Your task to perform on an android device: open chrome and create a bookmark for the current page Image 0: 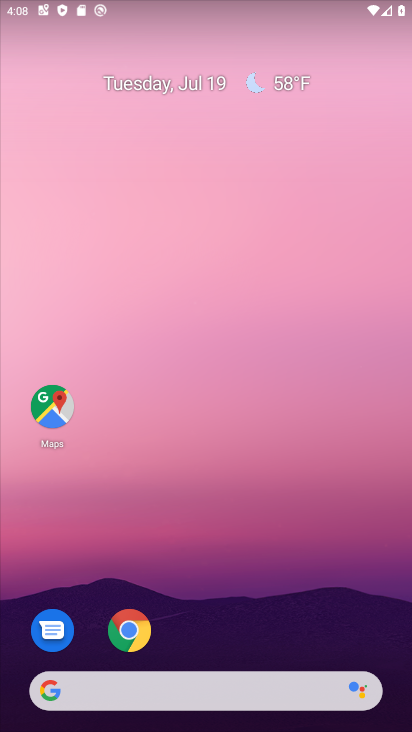
Step 0: click (134, 645)
Your task to perform on an android device: open chrome and create a bookmark for the current page Image 1: 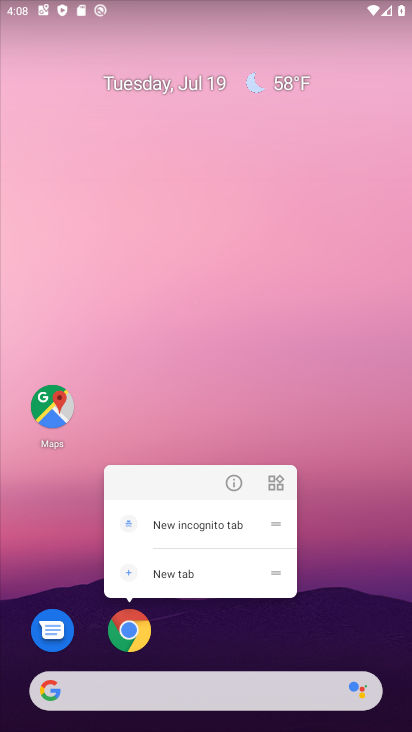
Step 1: click (133, 632)
Your task to perform on an android device: open chrome and create a bookmark for the current page Image 2: 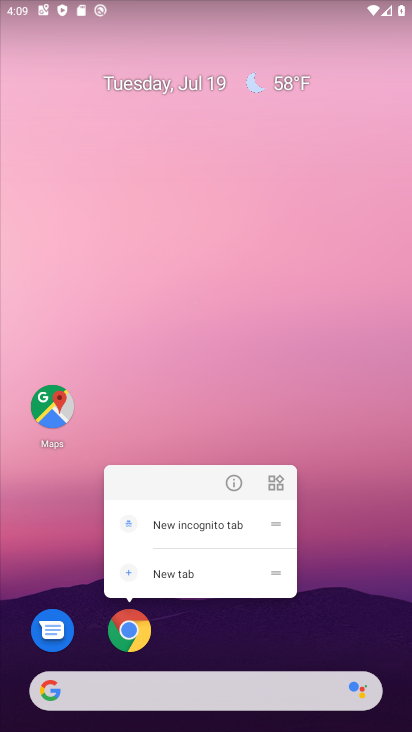
Step 2: click (134, 633)
Your task to perform on an android device: open chrome and create a bookmark for the current page Image 3: 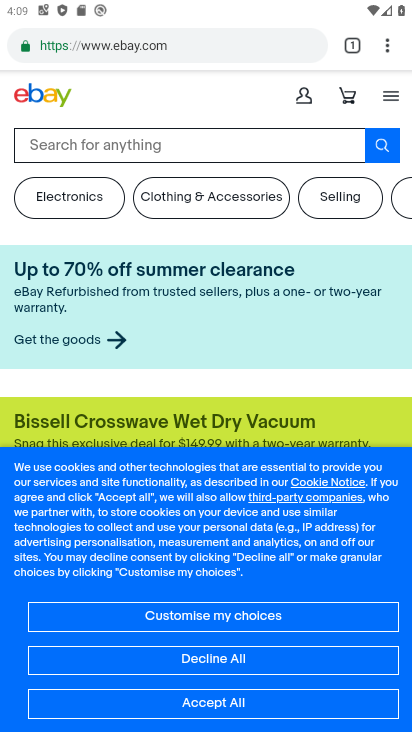
Step 3: task complete